Your task to perform on an android device: toggle airplane mode Image 0: 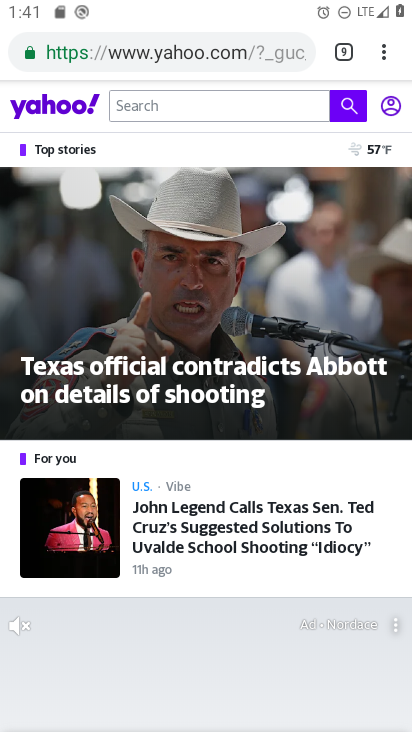
Step 0: press home button
Your task to perform on an android device: toggle airplane mode Image 1: 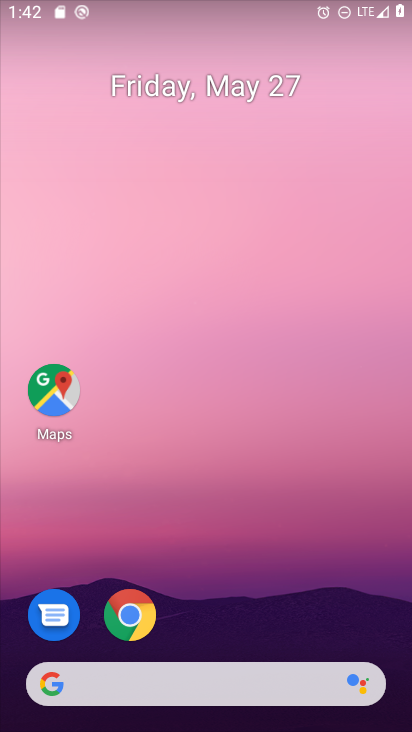
Step 1: drag from (312, 649) to (286, 107)
Your task to perform on an android device: toggle airplane mode Image 2: 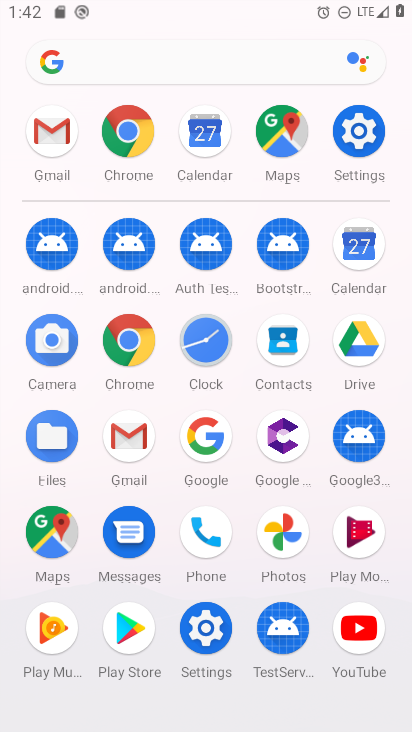
Step 2: click (361, 141)
Your task to perform on an android device: toggle airplane mode Image 3: 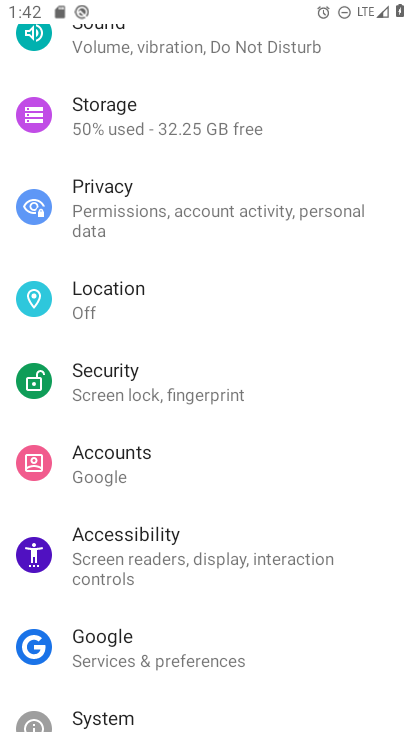
Step 3: drag from (292, 162) to (275, 702)
Your task to perform on an android device: toggle airplane mode Image 4: 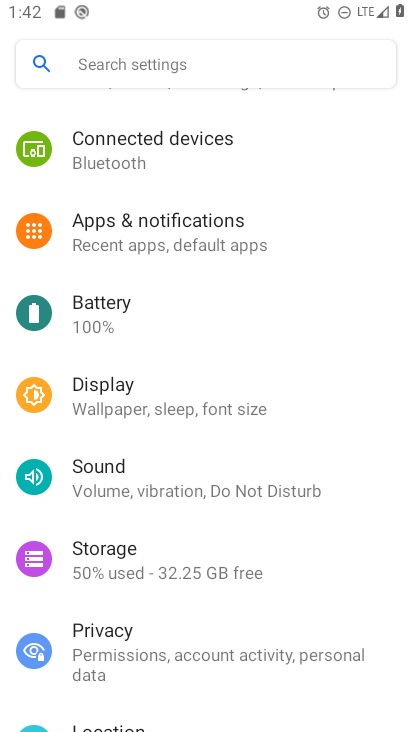
Step 4: drag from (227, 239) to (245, 708)
Your task to perform on an android device: toggle airplane mode Image 5: 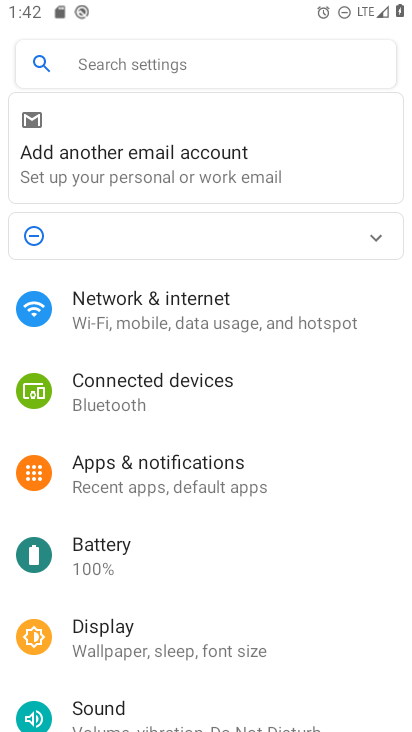
Step 5: click (252, 319)
Your task to perform on an android device: toggle airplane mode Image 6: 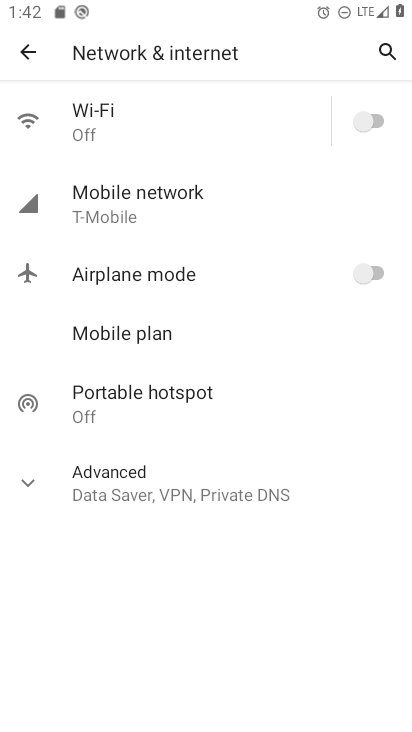
Step 6: click (385, 273)
Your task to perform on an android device: toggle airplane mode Image 7: 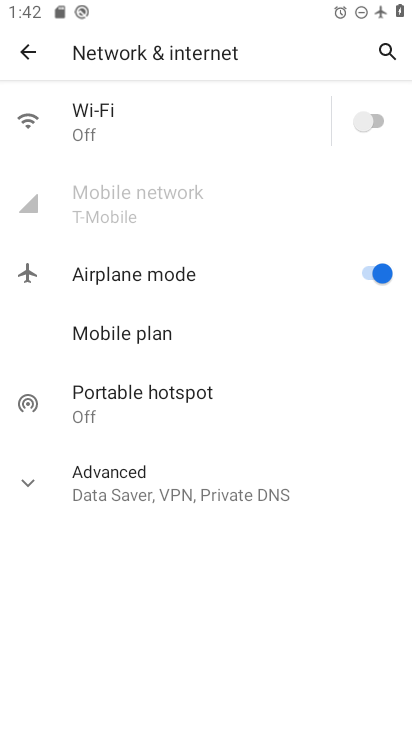
Step 7: task complete